Your task to perform on an android device: toggle priority inbox in the gmail app Image 0: 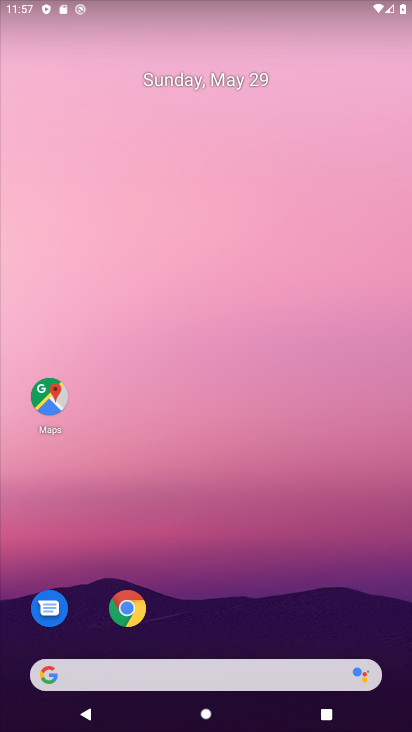
Step 0: drag from (204, 634) to (254, 11)
Your task to perform on an android device: toggle priority inbox in the gmail app Image 1: 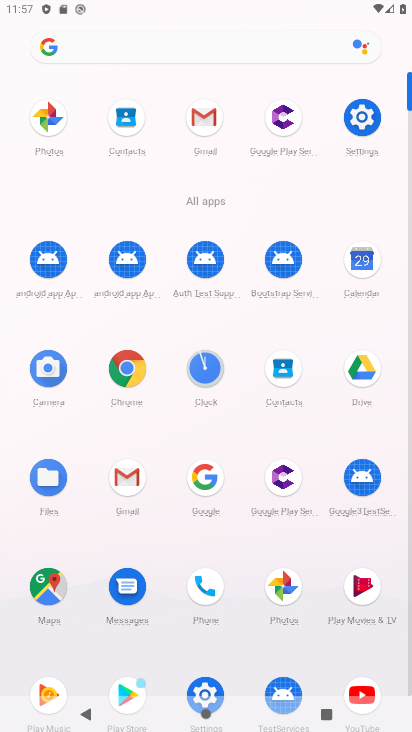
Step 1: click (129, 489)
Your task to perform on an android device: toggle priority inbox in the gmail app Image 2: 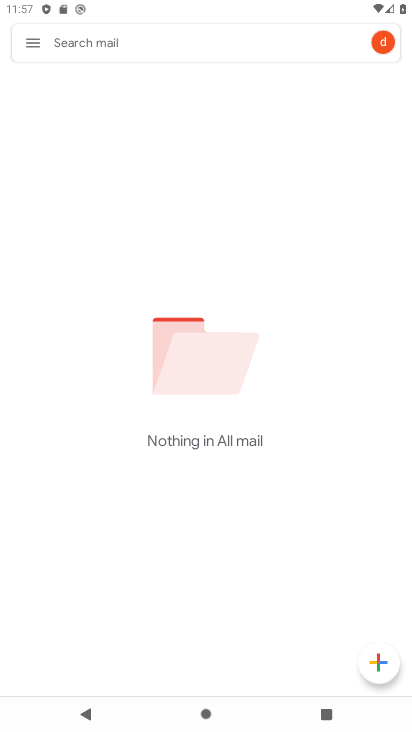
Step 2: click (29, 41)
Your task to perform on an android device: toggle priority inbox in the gmail app Image 3: 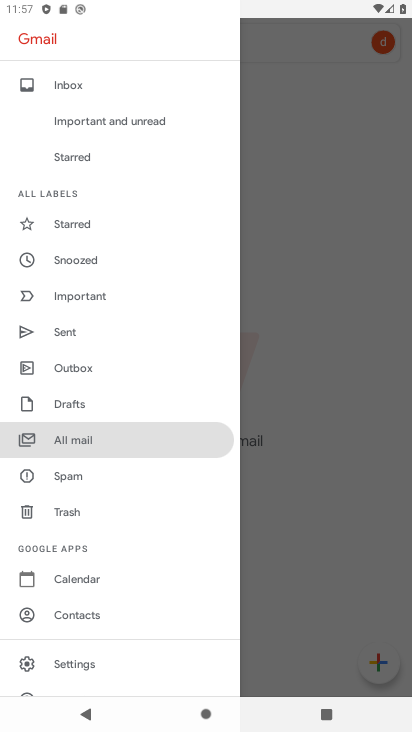
Step 3: drag from (79, 637) to (131, 315)
Your task to perform on an android device: toggle priority inbox in the gmail app Image 4: 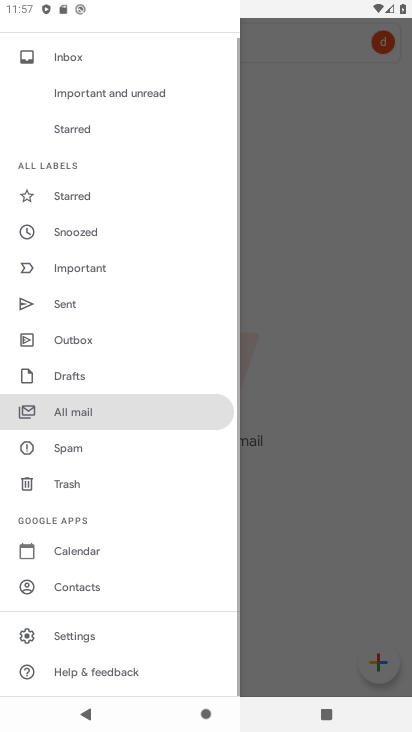
Step 4: click (83, 637)
Your task to perform on an android device: toggle priority inbox in the gmail app Image 5: 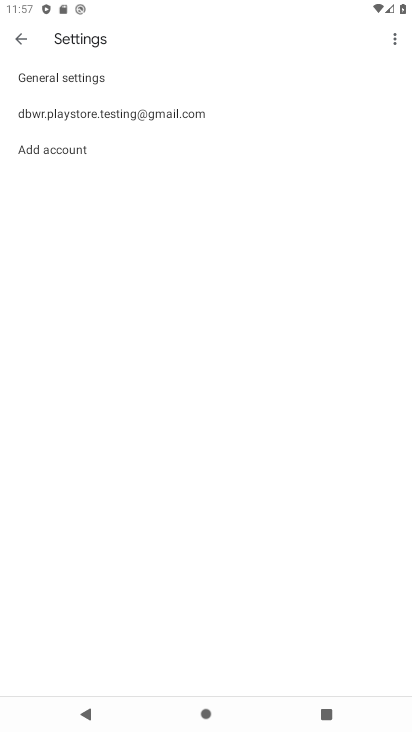
Step 5: click (90, 121)
Your task to perform on an android device: toggle priority inbox in the gmail app Image 6: 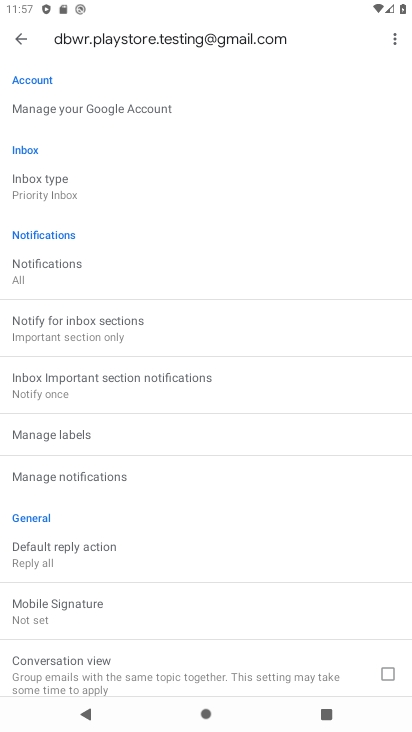
Step 6: click (80, 193)
Your task to perform on an android device: toggle priority inbox in the gmail app Image 7: 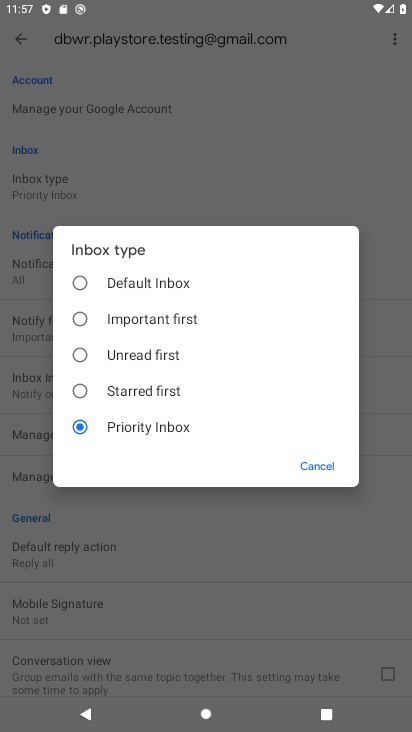
Step 7: click (147, 289)
Your task to perform on an android device: toggle priority inbox in the gmail app Image 8: 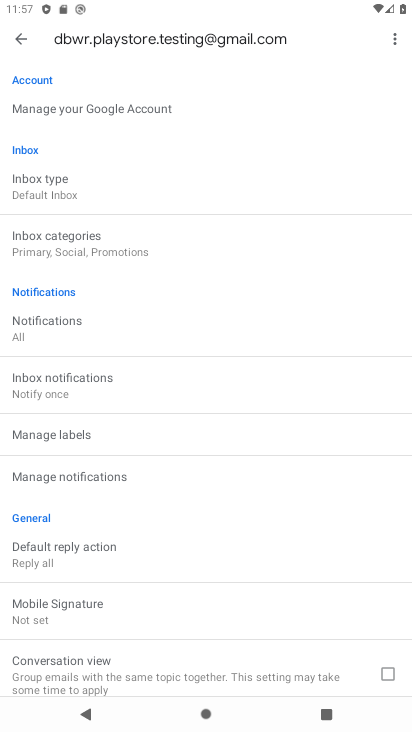
Step 8: task complete